Your task to perform on an android device: When is my next meeting? Image 0: 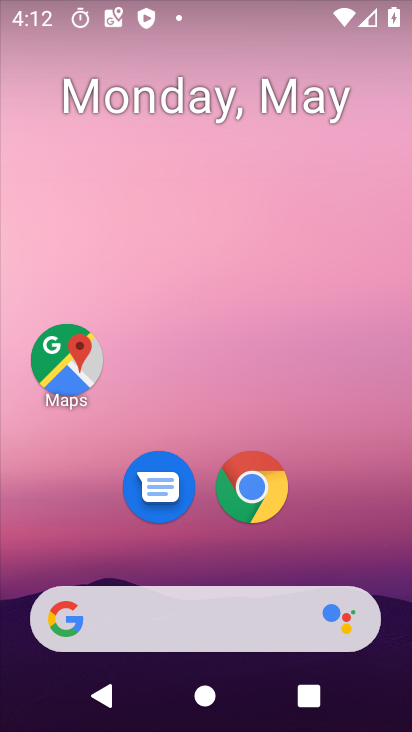
Step 0: drag from (258, 469) to (284, 173)
Your task to perform on an android device: When is my next meeting? Image 1: 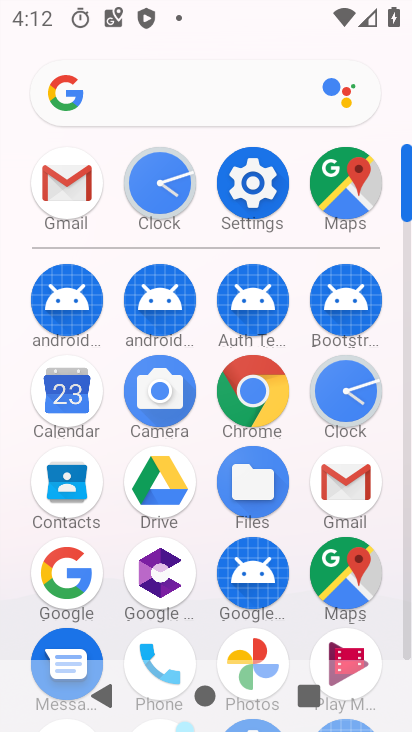
Step 1: click (61, 391)
Your task to perform on an android device: When is my next meeting? Image 2: 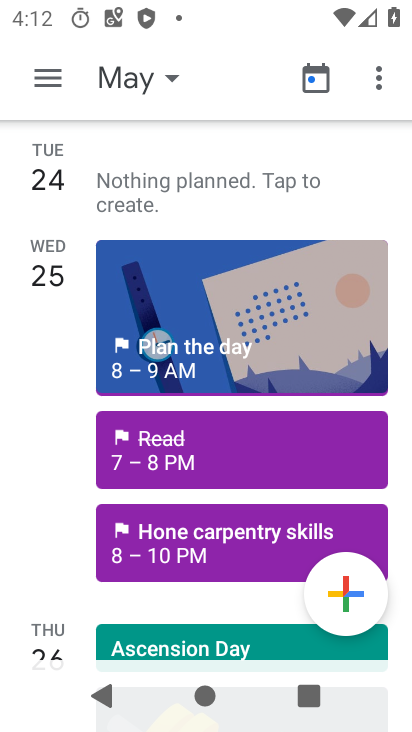
Step 2: click (140, 89)
Your task to perform on an android device: When is my next meeting? Image 3: 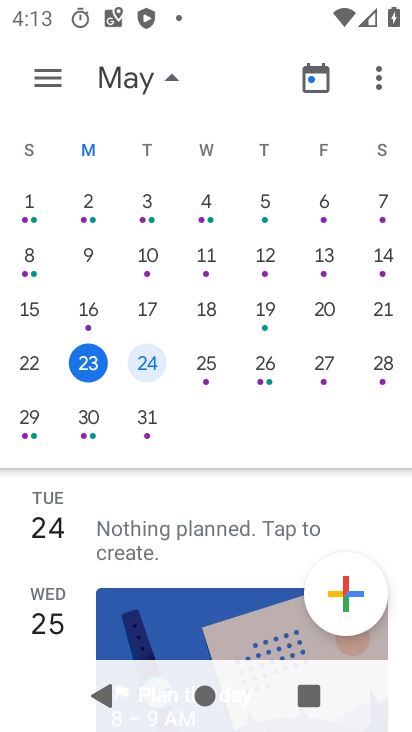
Step 3: click (151, 367)
Your task to perform on an android device: When is my next meeting? Image 4: 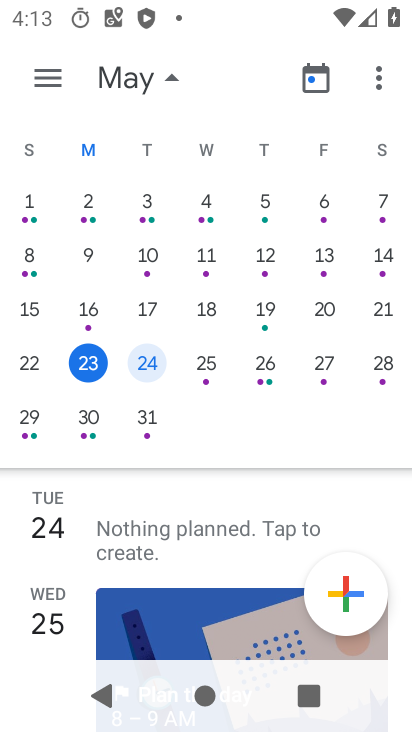
Step 4: click (170, 618)
Your task to perform on an android device: When is my next meeting? Image 5: 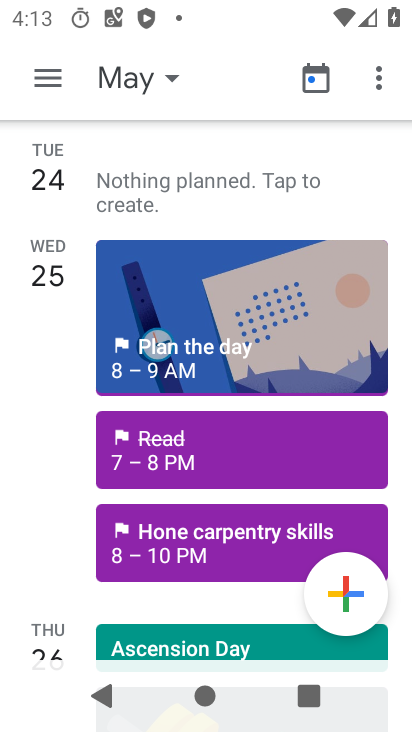
Step 5: task complete